Your task to perform on an android device: turn on data saver in the chrome app Image 0: 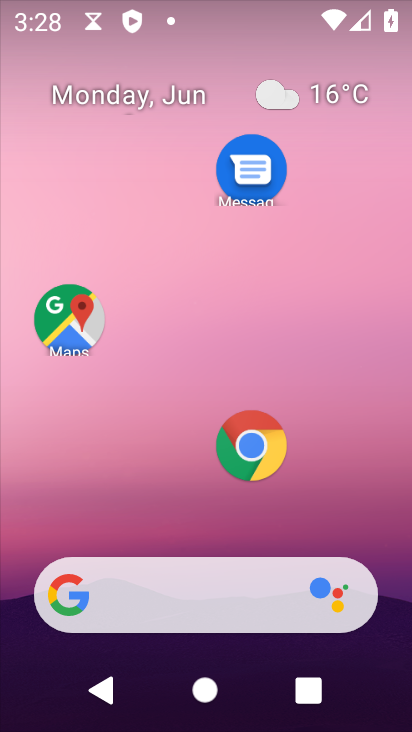
Step 0: click (263, 462)
Your task to perform on an android device: turn on data saver in the chrome app Image 1: 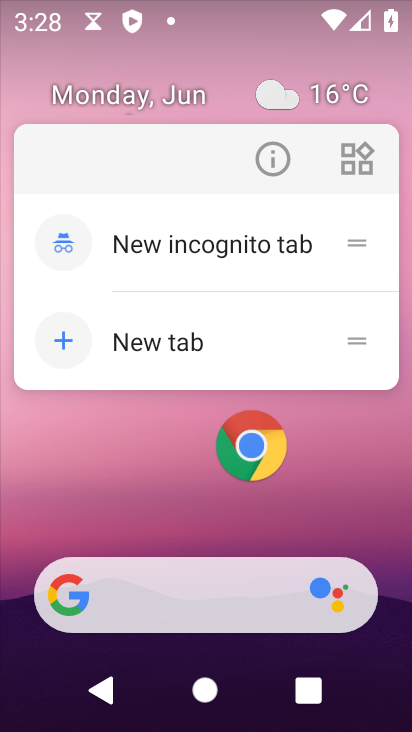
Step 1: click (253, 454)
Your task to perform on an android device: turn on data saver in the chrome app Image 2: 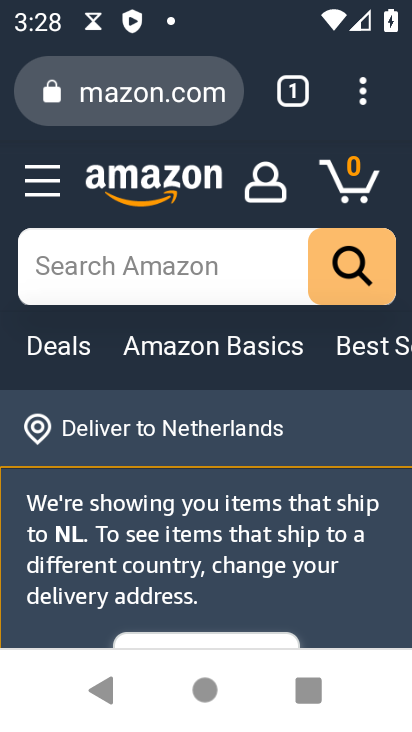
Step 2: drag from (348, 120) to (234, 487)
Your task to perform on an android device: turn on data saver in the chrome app Image 3: 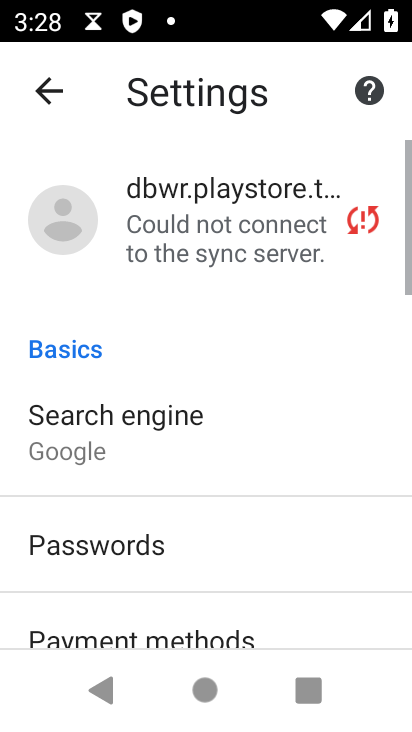
Step 3: drag from (174, 562) to (288, 125)
Your task to perform on an android device: turn on data saver in the chrome app Image 4: 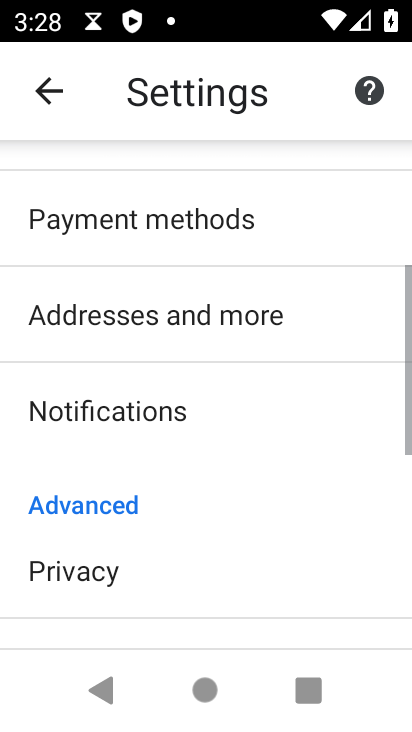
Step 4: drag from (172, 594) to (270, 200)
Your task to perform on an android device: turn on data saver in the chrome app Image 5: 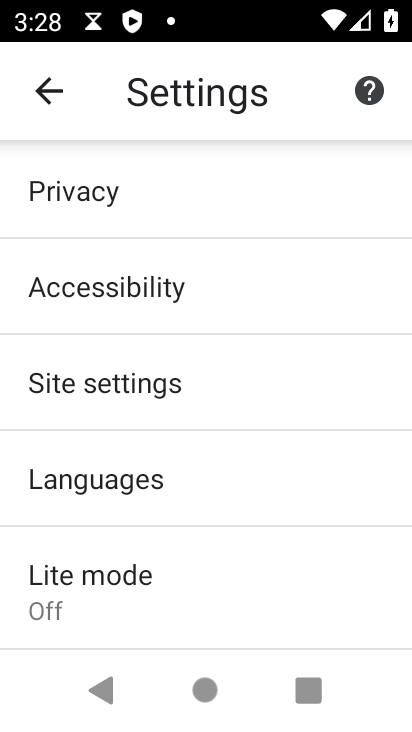
Step 5: click (167, 580)
Your task to perform on an android device: turn on data saver in the chrome app Image 6: 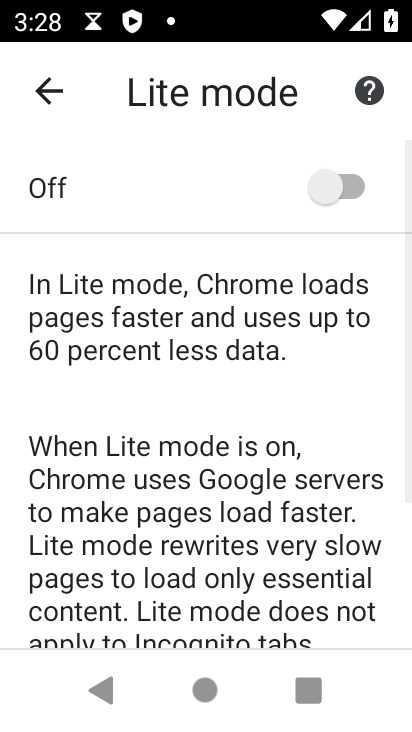
Step 6: click (366, 180)
Your task to perform on an android device: turn on data saver in the chrome app Image 7: 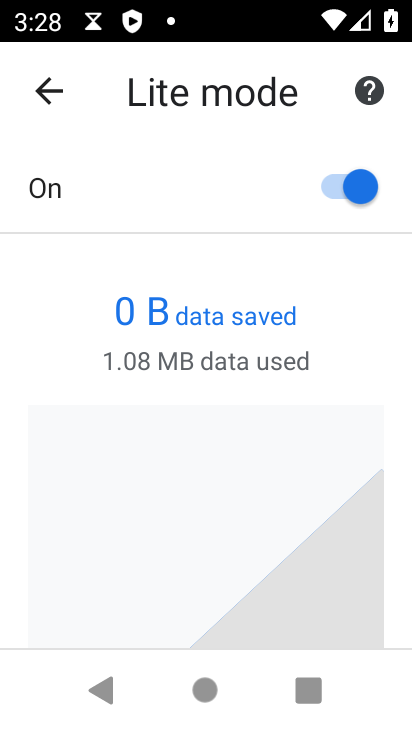
Step 7: task complete